Your task to perform on an android device: Open the map Image 0: 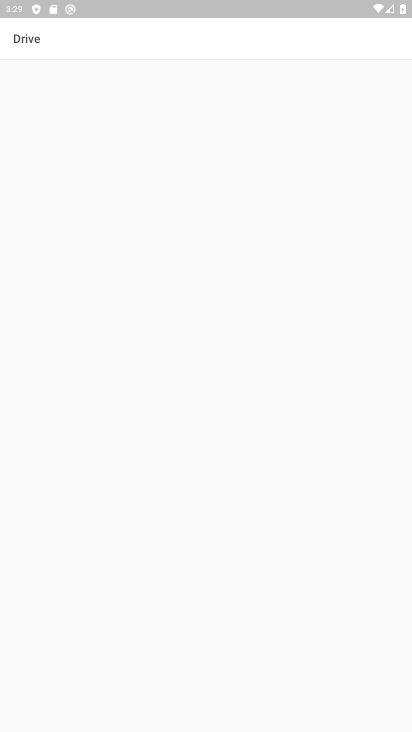
Step 0: press back button
Your task to perform on an android device: Open the map Image 1: 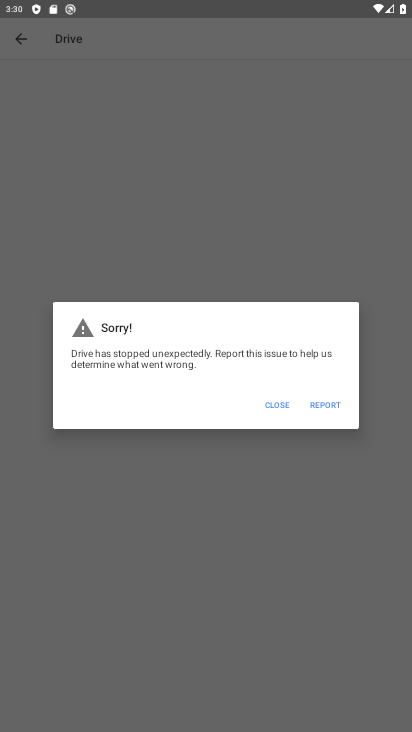
Step 1: press back button
Your task to perform on an android device: Open the map Image 2: 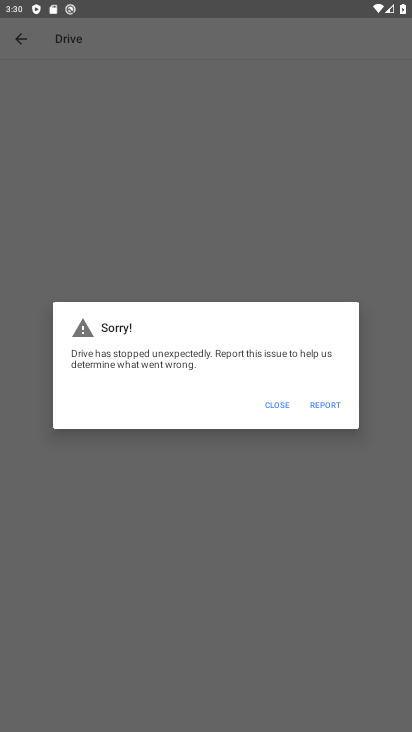
Step 2: press home button
Your task to perform on an android device: Open the map Image 3: 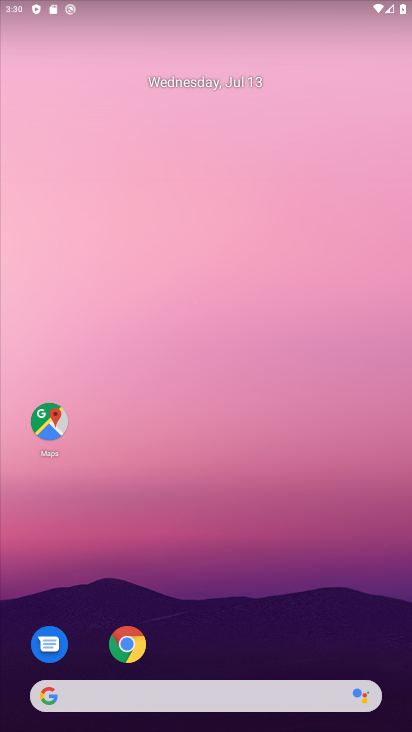
Step 3: click (54, 421)
Your task to perform on an android device: Open the map Image 4: 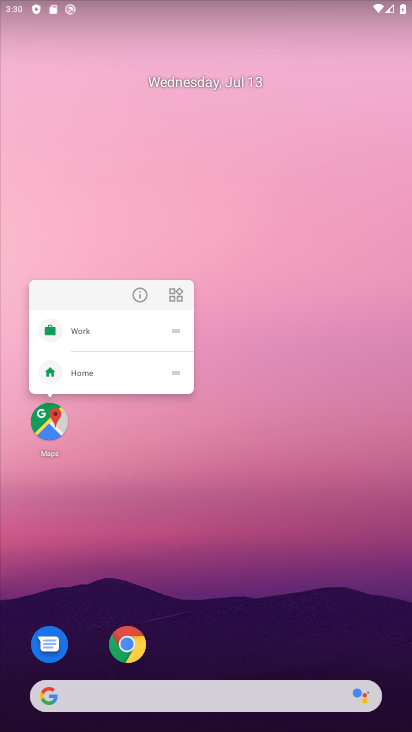
Step 4: click (32, 412)
Your task to perform on an android device: Open the map Image 5: 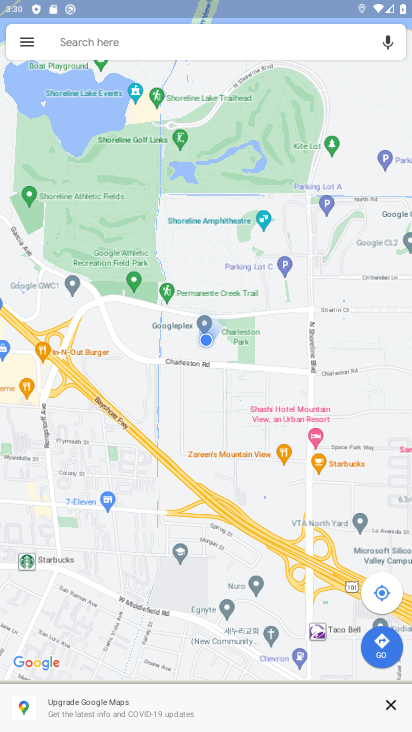
Step 5: task complete